Your task to perform on an android device: What is the news today? Image 0: 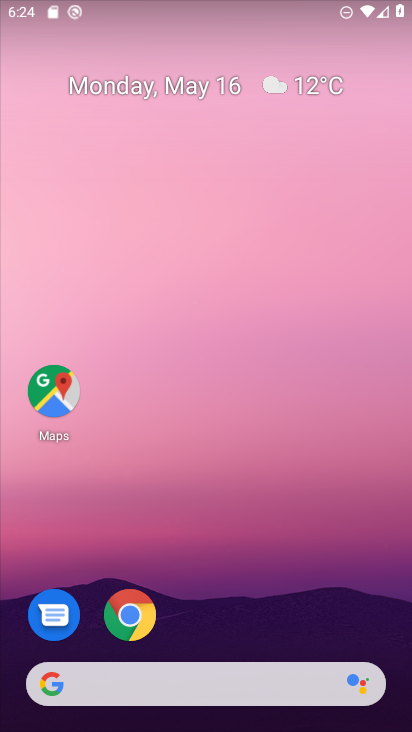
Step 0: drag from (224, 579) to (271, 180)
Your task to perform on an android device: What is the news today? Image 1: 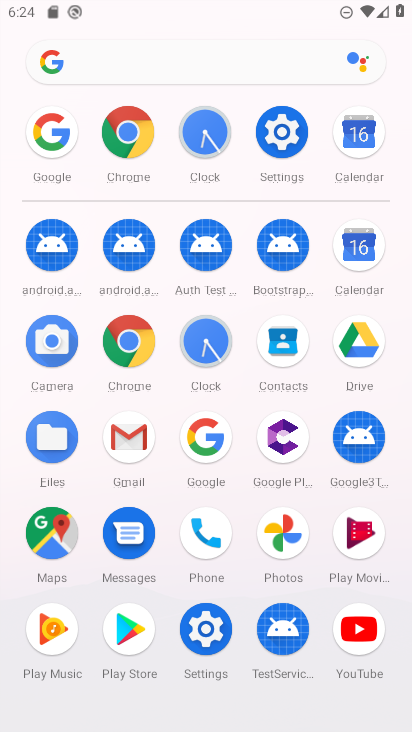
Step 1: click (54, 136)
Your task to perform on an android device: What is the news today? Image 2: 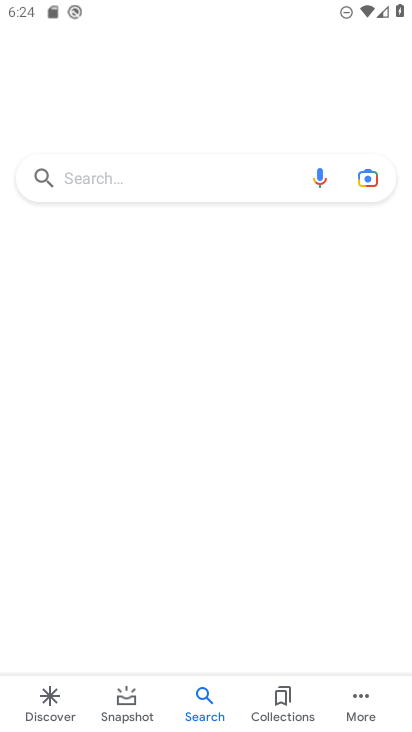
Step 2: click (116, 177)
Your task to perform on an android device: What is the news today? Image 3: 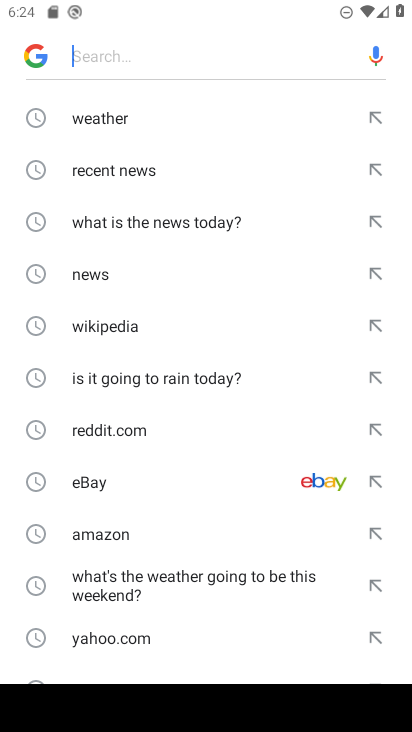
Step 3: type "news today"
Your task to perform on an android device: What is the news today? Image 4: 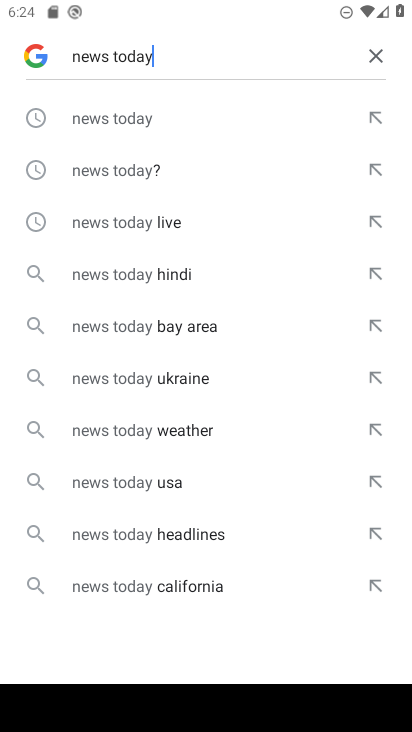
Step 4: click (190, 116)
Your task to perform on an android device: What is the news today? Image 5: 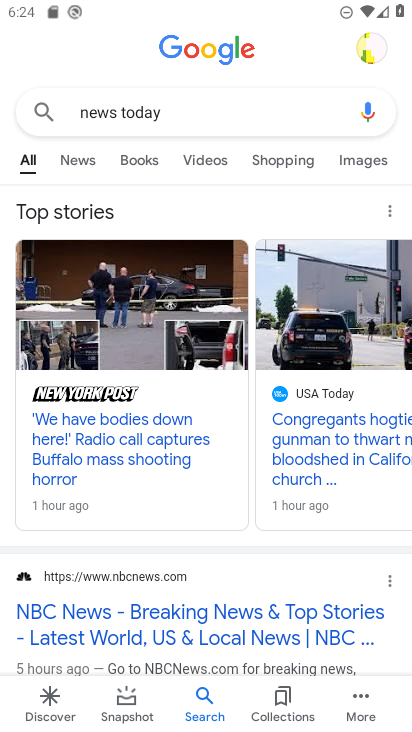
Step 5: task complete